Your task to perform on an android device: turn notification dots off Image 0: 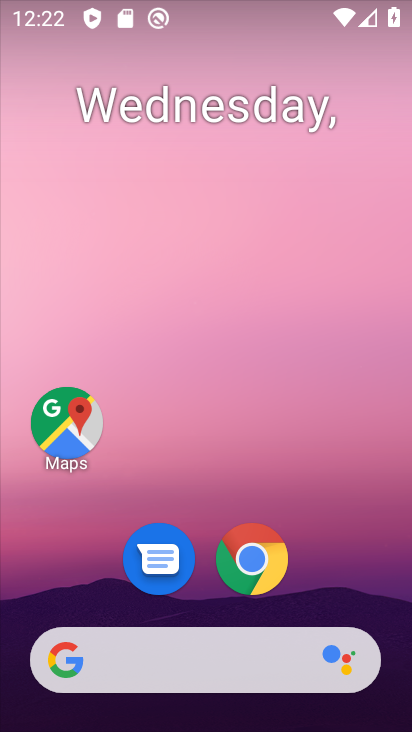
Step 0: drag from (213, 603) to (275, 5)
Your task to perform on an android device: turn notification dots off Image 1: 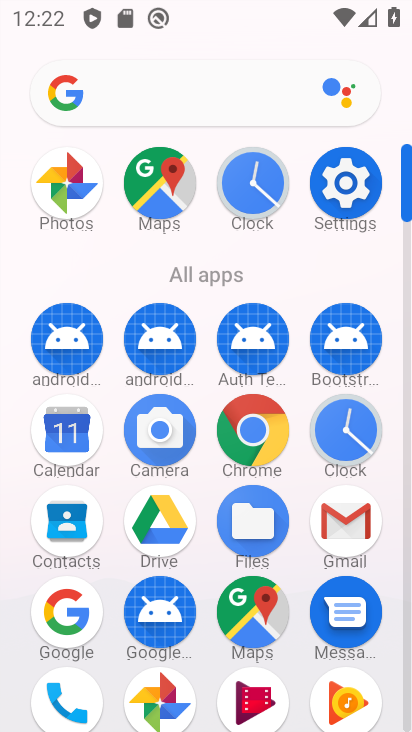
Step 1: click (346, 201)
Your task to perform on an android device: turn notification dots off Image 2: 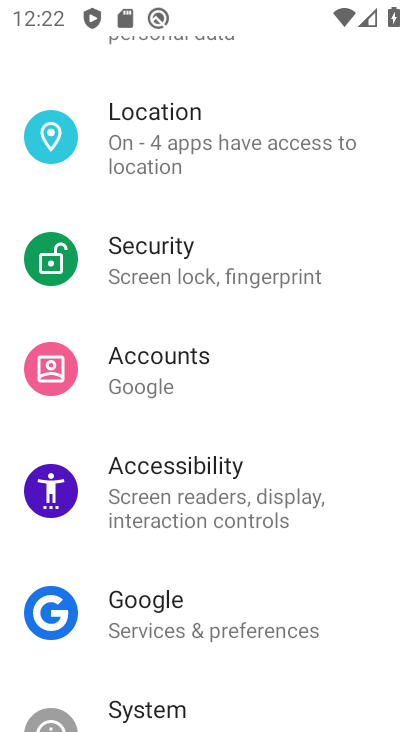
Step 2: drag from (198, 613) to (248, 275)
Your task to perform on an android device: turn notification dots off Image 3: 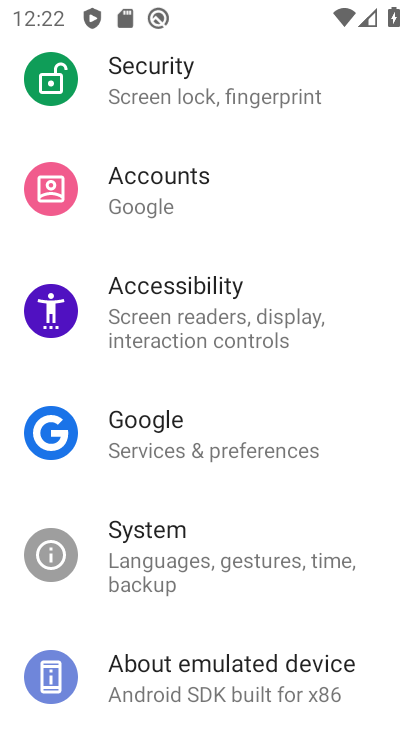
Step 3: drag from (245, 320) to (170, 701)
Your task to perform on an android device: turn notification dots off Image 4: 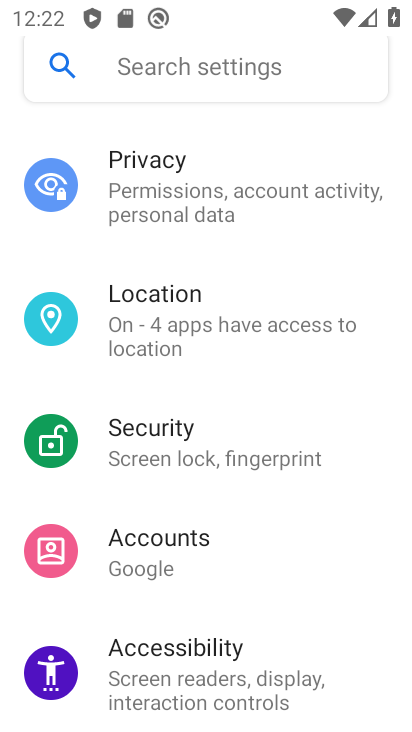
Step 4: drag from (252, 324) to (218, 616)
Your task to perform on an android device: turn notification dots off Image 5: 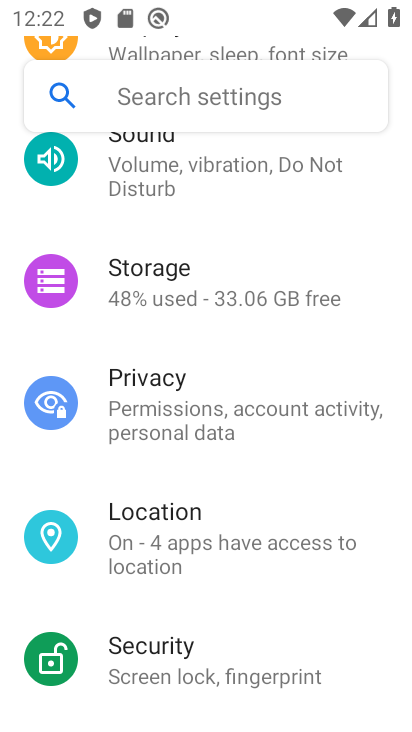
Step 5: drag from (232, 278) to (207, 575)
Your task to perform on an android device: turn notification dots off Image 6: 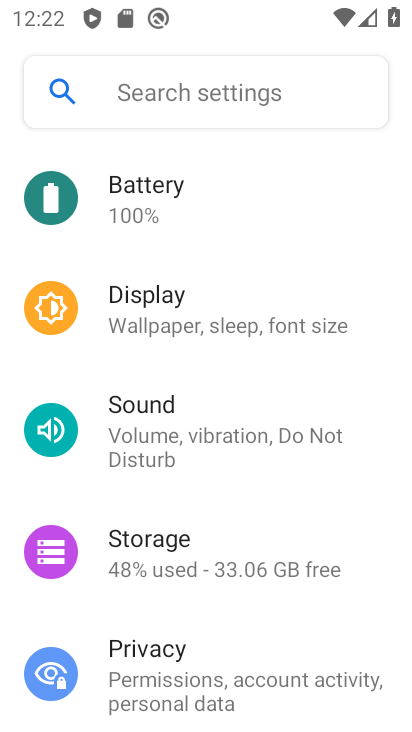
Step 6: drag from (211, 267) to (137, 718)
Your task to perform on an android device: turn notification dots off Image 7: 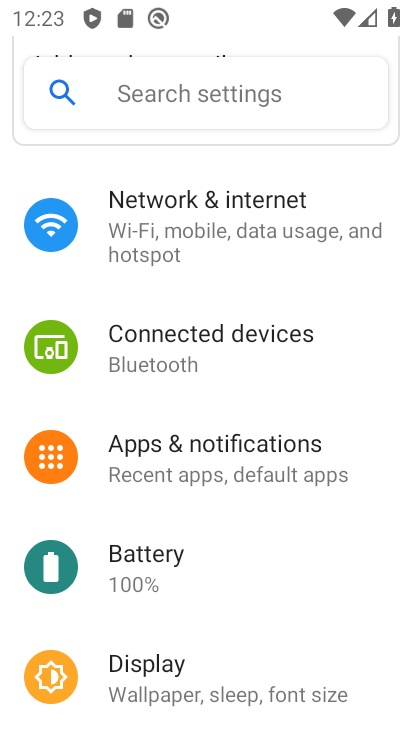
Step 7: click (208, 457)
Your task to perform on an android device: turn notification dots off Image 8: 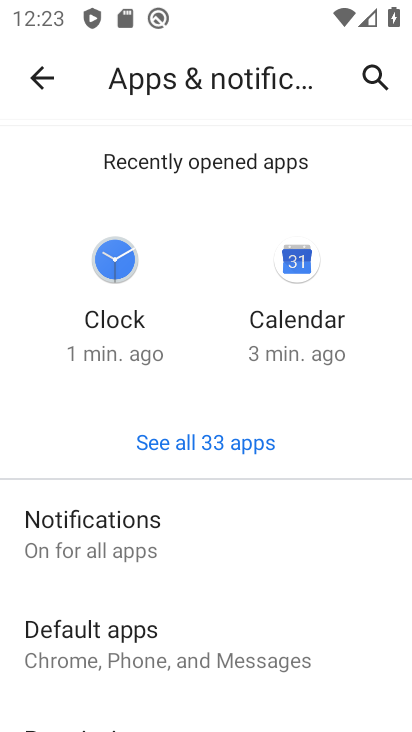
Step 8: click (173, 549)
Your task to perform on an android device: turn notification dots off Image 9: 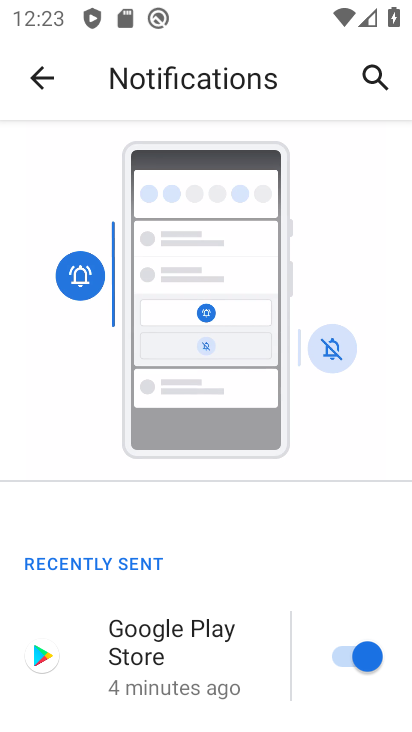
Step 9: drag from (187, 575) to (218, 438)
Your task to perform on an android device: turn notification dots off Image 10: 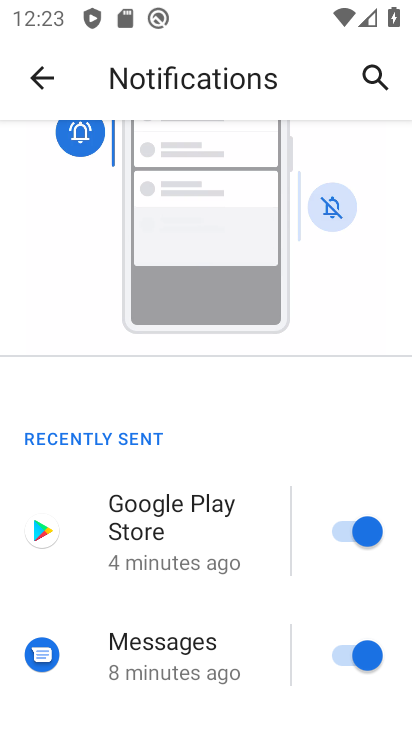
Step 10: drag from (195, 568) to (270, 80)
Your task to perform on an android device: turn notification dots off Image 11: 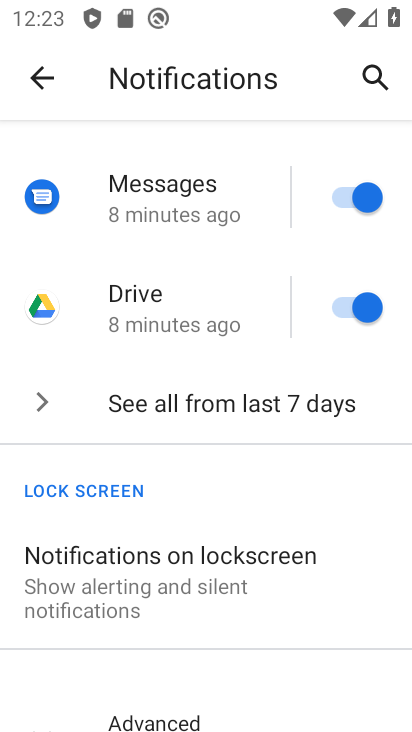
Step 11: drag from (138, 653) to (197, 302)
Your task to perform on an android device: turn notification dots off Image 12: 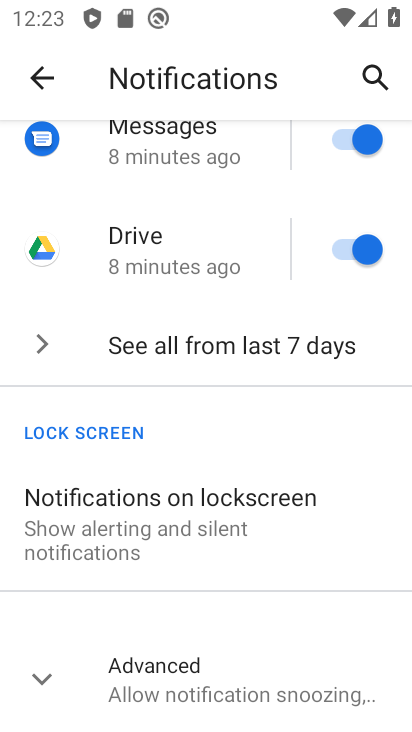
Step 12: click (209, 676)
Your task to perform on an android device: turn notification dots off Image 13: 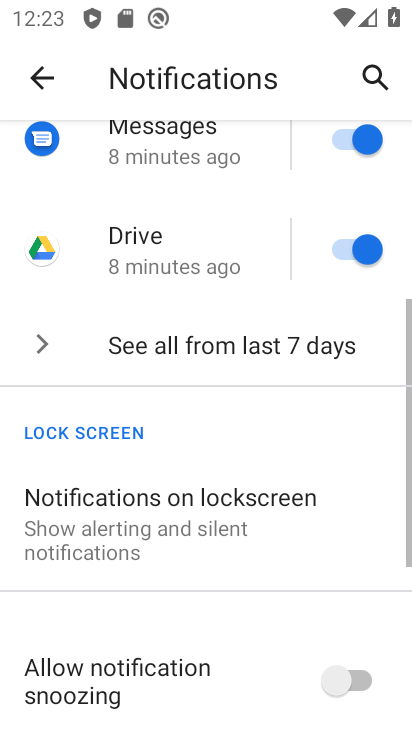
Step 13: drag from (265, 580) to (278, 270)
Your task to perform on an android device: turn notification dots off Image 14: 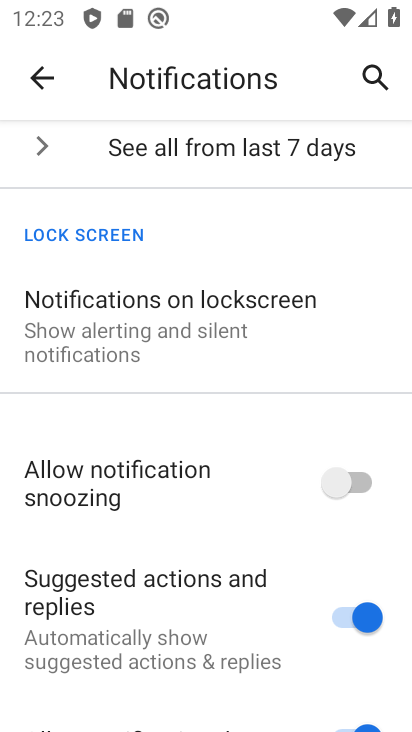
Step 14: drag from (257, 644) to (265, 334)
Your task to perform on an android device: turn notification dots off Image 15: 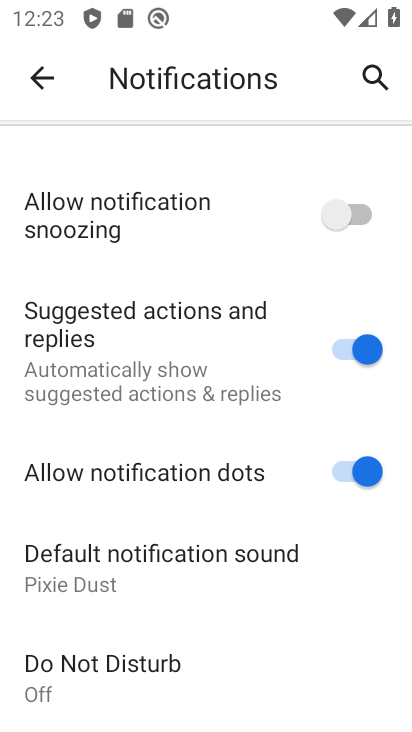
Step 15: click (338, 481)
Your task to perform on an android device: turn notification dots off Image 16: 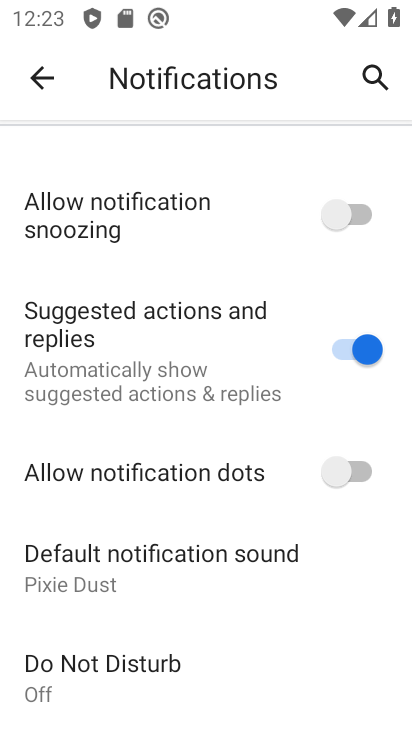
Step 16: task complete